Your task to perform on an android device: Go to internet settings Image 0: 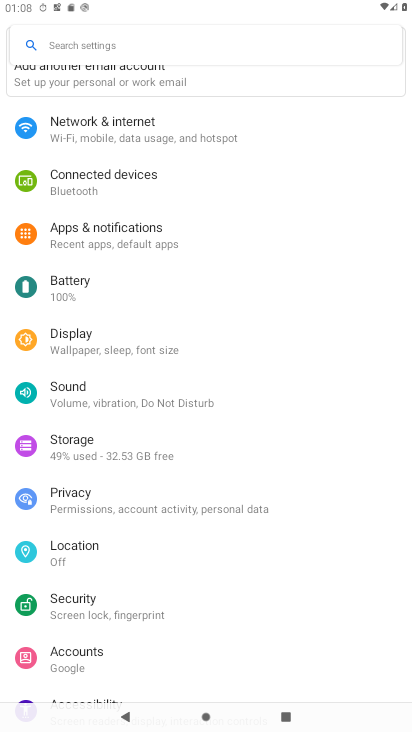
Step 0: click (190, 140)
Your task to perform on an android device: Go to internet settings Image 1: 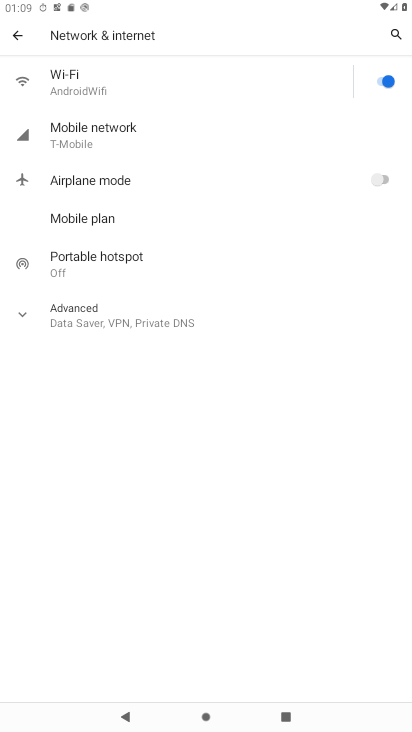
Step 1: task complete